Your task to perform on an android device: move an email to a new category in the gmail app Image 0: 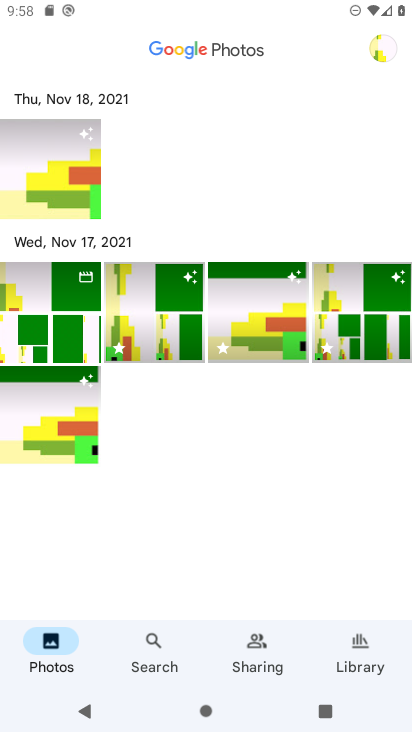
Step 0: press home button
Your task to perform on an android device: move an email to a new category in the gmail app Image 1: 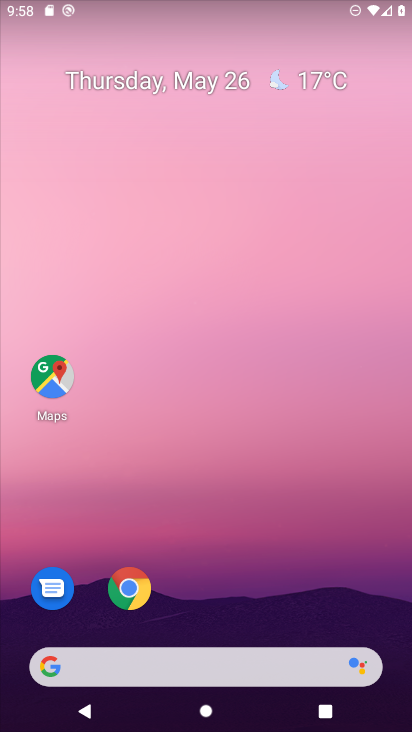
Step 1: drag from (341, 603) to (285, 103)
Your task to perform on an android device: move an email to a new category in the gmail app Image 2: 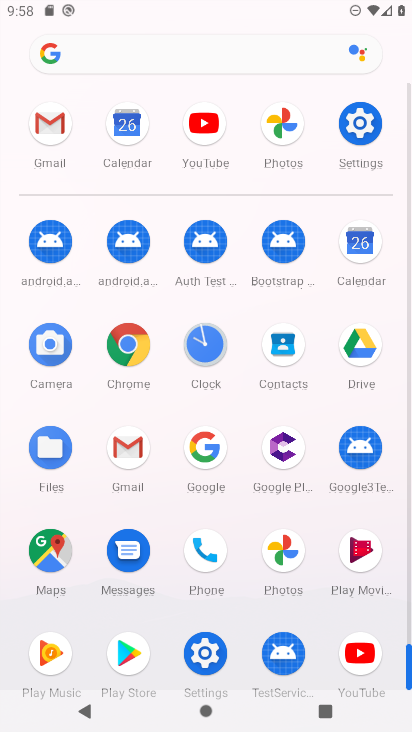
Step 2: click (127, 447)
Your task to perform on an android device: move an email to a new category in the gmail app Image 3: 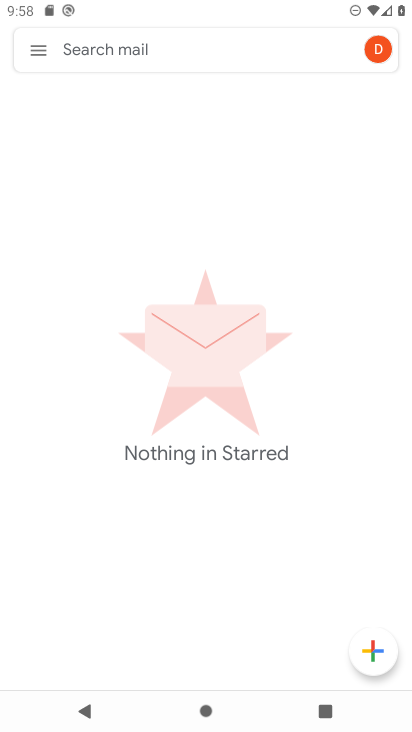
Step 3: click (32, 47)
Your task to perform on an android device: move an email to a new category in the gmail app Image 4: 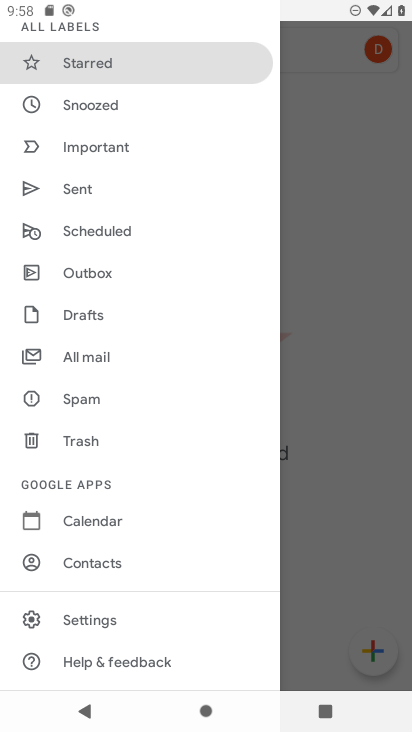
Step 4: click (84, 356)
Your task to perform on an android device: move an email to a new category in the gmail app Image 5: 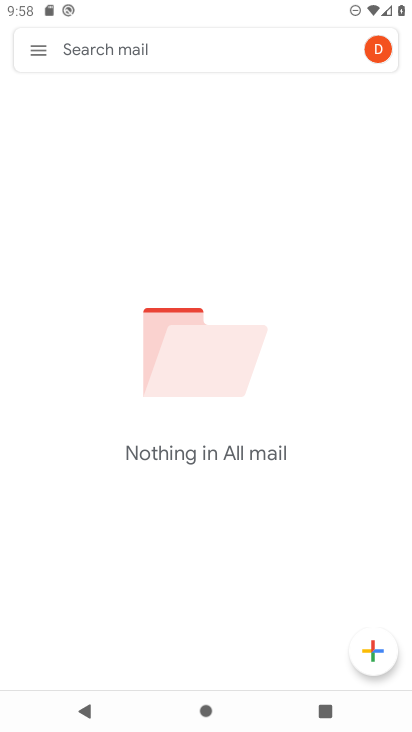
Step 5: task complete